Your task to perform on an android device: turn on sleep mode Image 0: 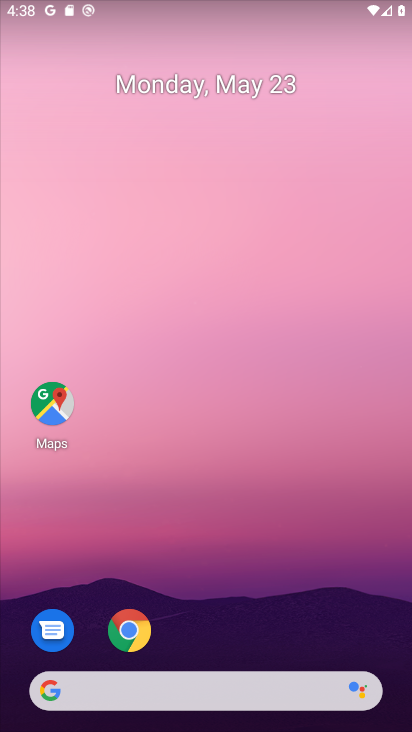
Step 0: press home button
Your task to perform on an android device: turn on sleep mode Image 1: 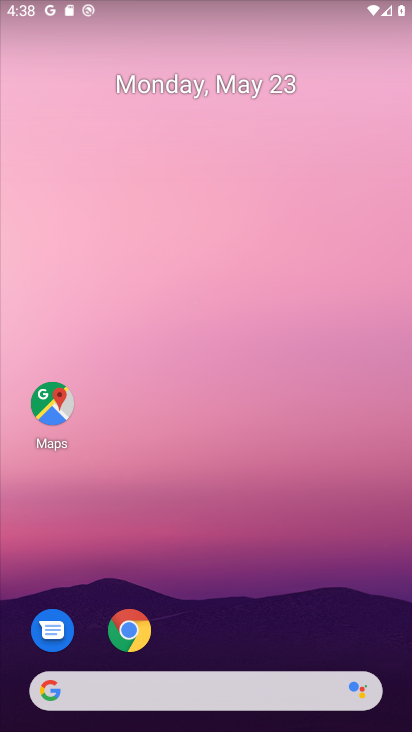
Step 1: drag from (226, 648) to (291, 131)
Your task to perform on an android device: turn on sleep mode Image 2: 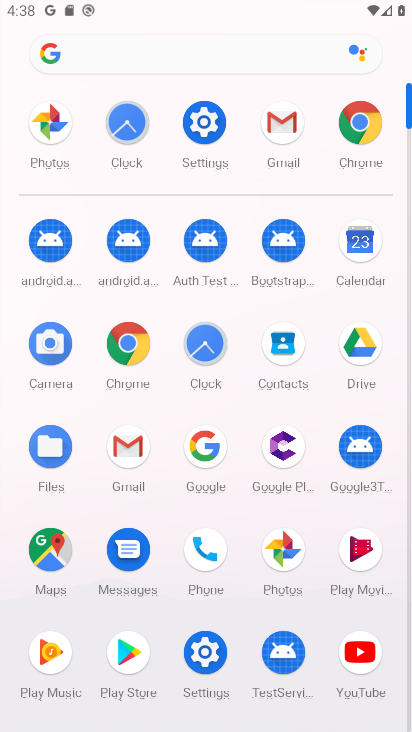
Step 2: click (200, 113)
Your task to perform on an android device: turn on sleep mode Image 3: 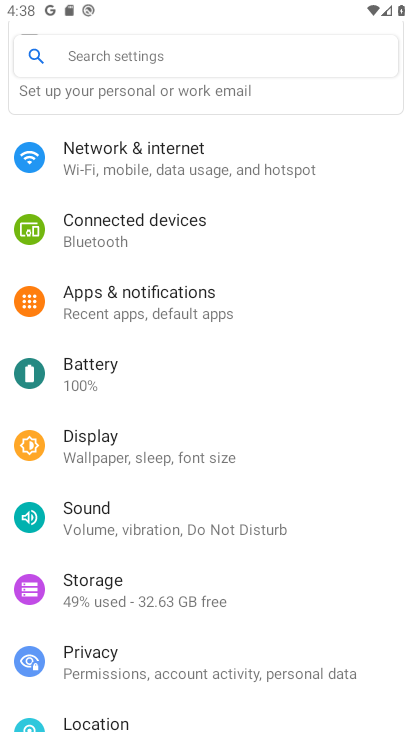
Step 3: click (138, 440)
Your task to perform on an android device: turn on sleep mode Image 4: 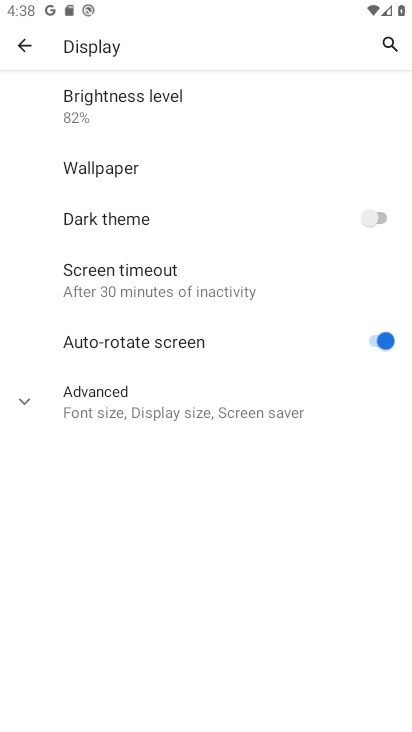
Step 4: click (21, 400)
Your task to perform on an android device: turn on sleep mode Image 5: 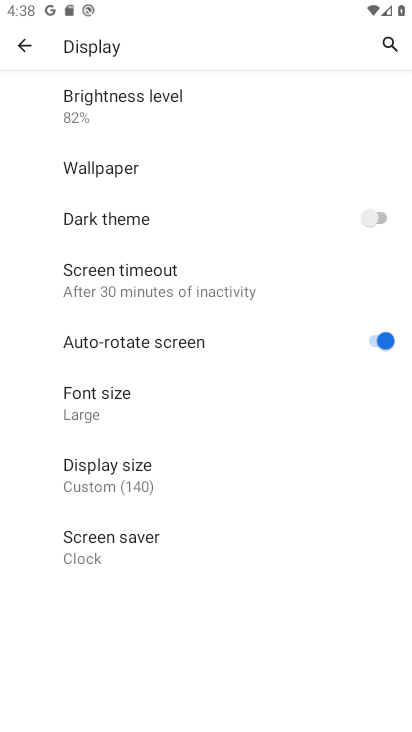
Step 5: task complete